Your task to perform on an android device: Go to CNN.com Image 0: 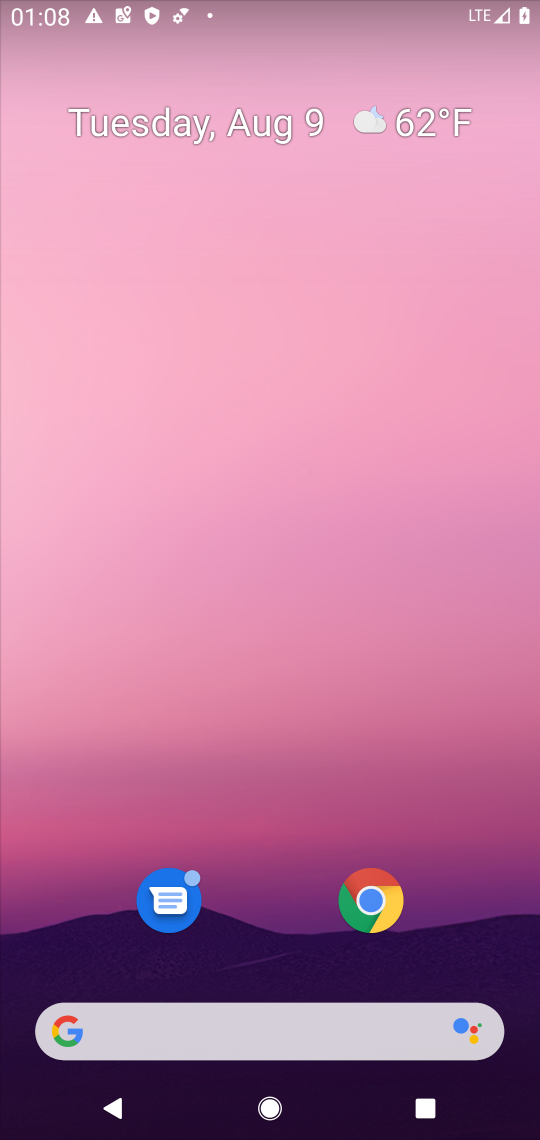
Step 0: press home button
Your task to perform on an android device: Go to CNN.com Image 1: 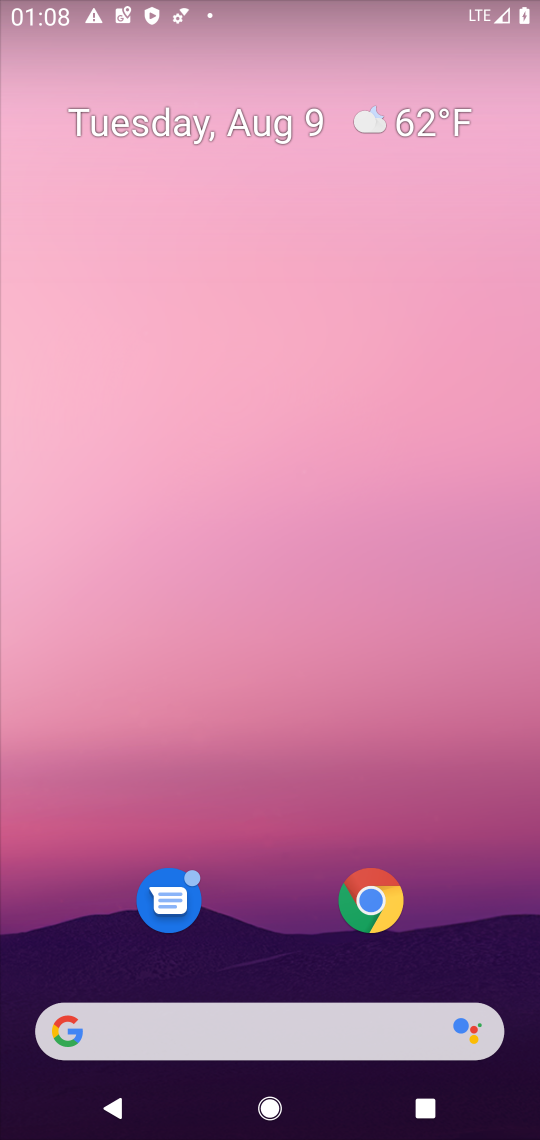
Step 1: drag from (433, 941) to (422, 439)
Your task to perform on an android device: Go to CNN.com Image 2: 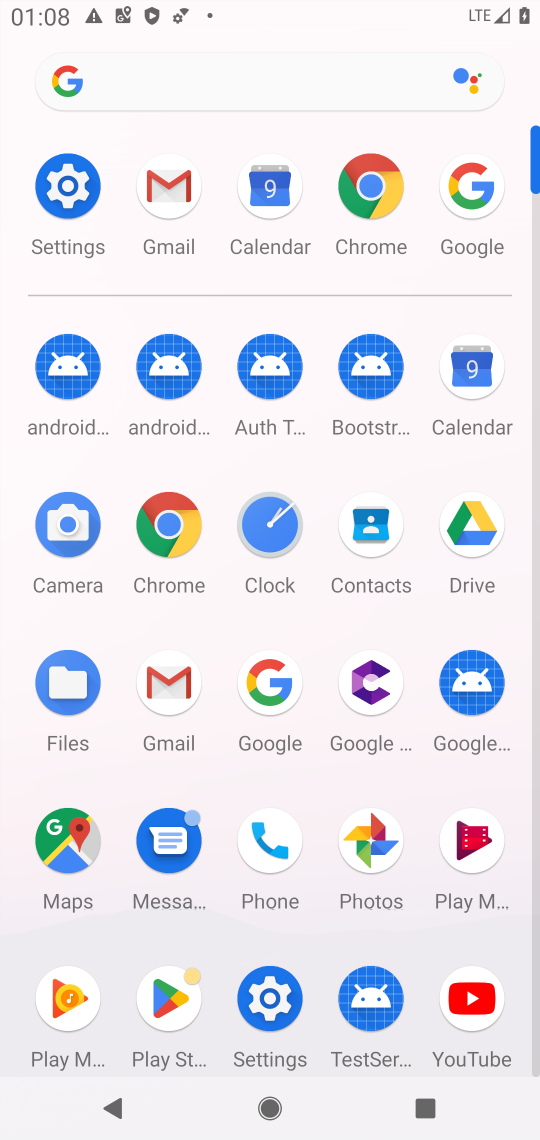
Step 2: click (172, 535)
Your task to perform on an android device: Go to CNN.com Image 3: 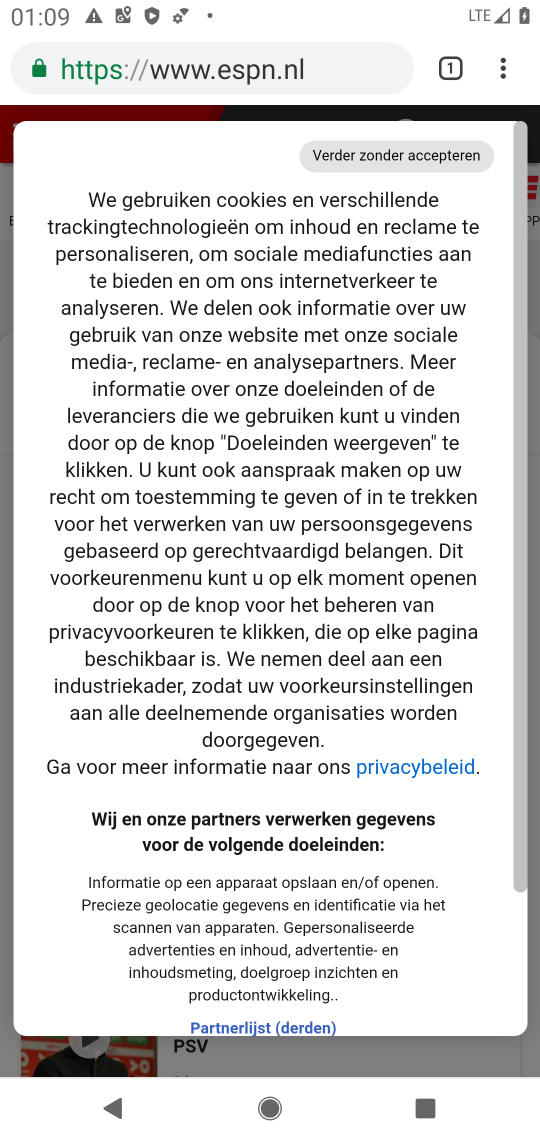
Step 3: click (338, 63)
Your task to perform on an android device: Go to CNN.com Image 4: 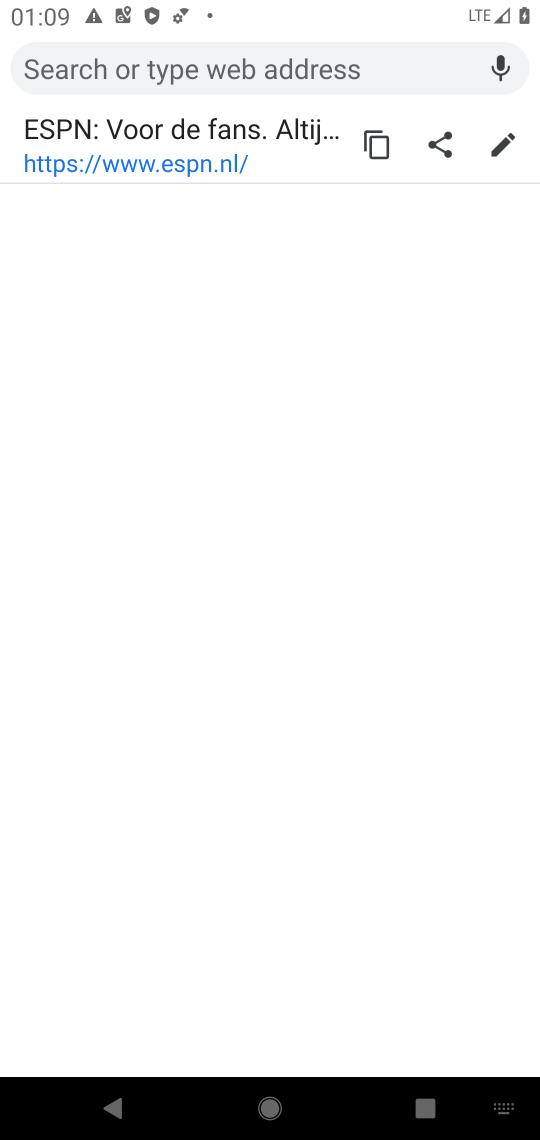
Step 4: type "cnn.com"
Your task to perform on an android device: Go to CNN.com Image 5: 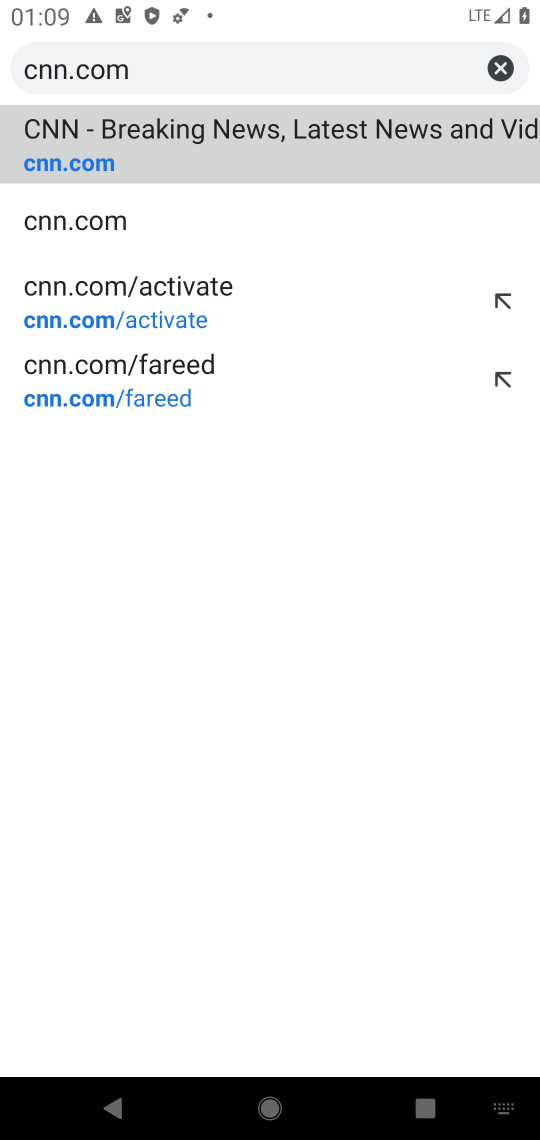
Step 5: click (199, 150)
Your task to perform on an android device: Go to CNN.com Image 6: 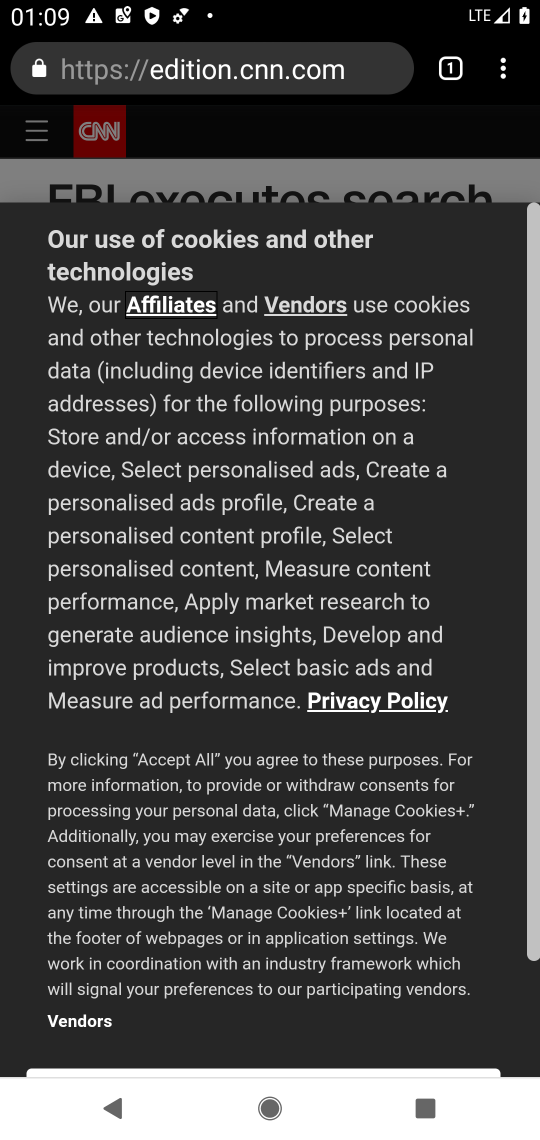
Step 6: task complete